Your task to perform on an android device: Open Google Maps Image 0: 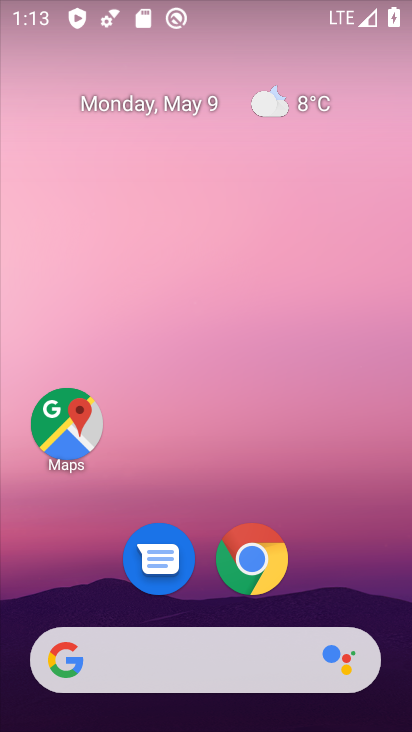
Step 0: click (68, 437)
Your task to perform on an android device: Open Google Maps Image 1: 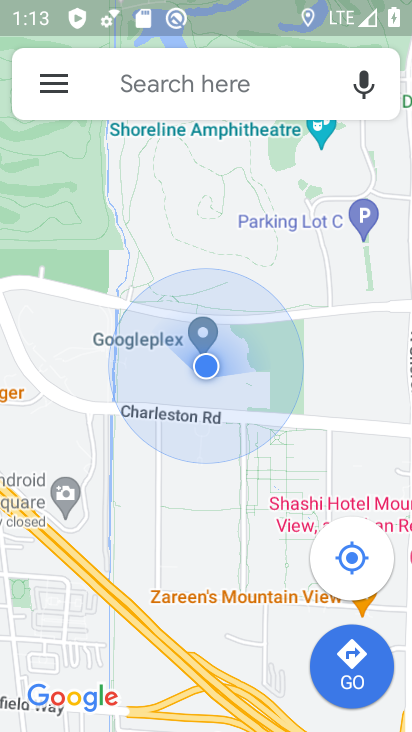
Step 1: task complete